Your task to perform on an android device: change timer sound Image 0: 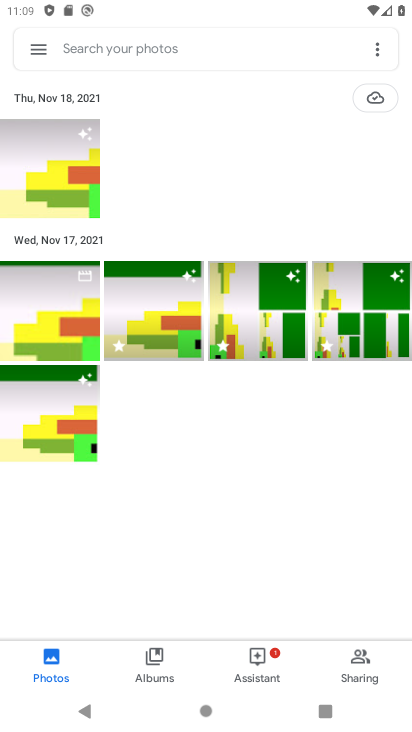
Step 0: press home button
Your task to perform on an android device: change timer sound Image 1: 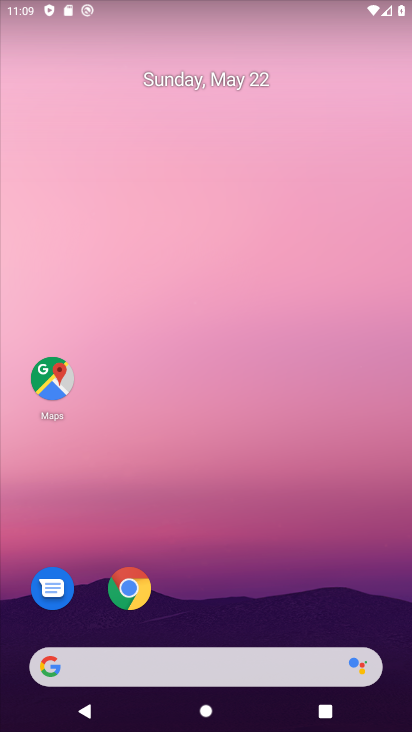
Step 1: drag from (235, 689) to (305, 47)
Your task to perform on an android device: change timer sound Image 2: 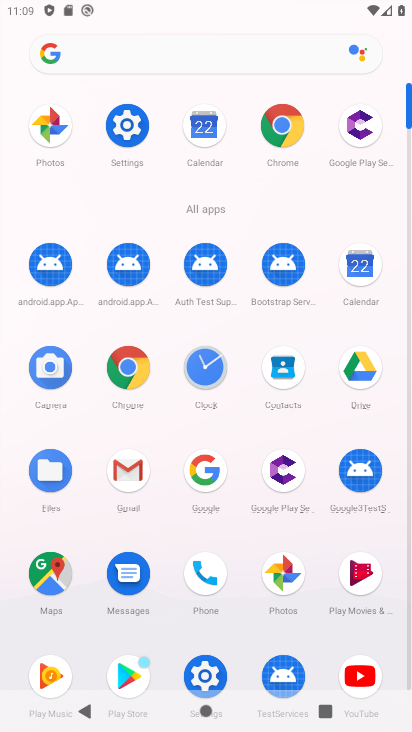
Step 2: click (116, 136)
Your task to perform on an android device: change timer sound Image 3: 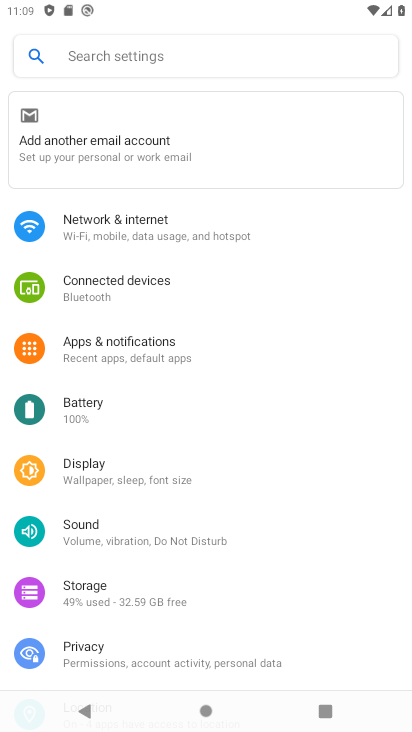
Step 3: press home button
Your task to perform on an android device: change timer sound Image 4: 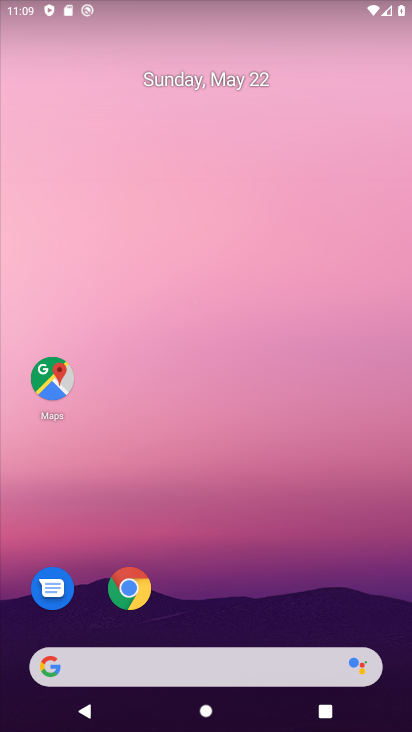
Step 4: drag from (155, 687) to (194, 257)
Your task to perform on an android device: change timer sound Image 5: 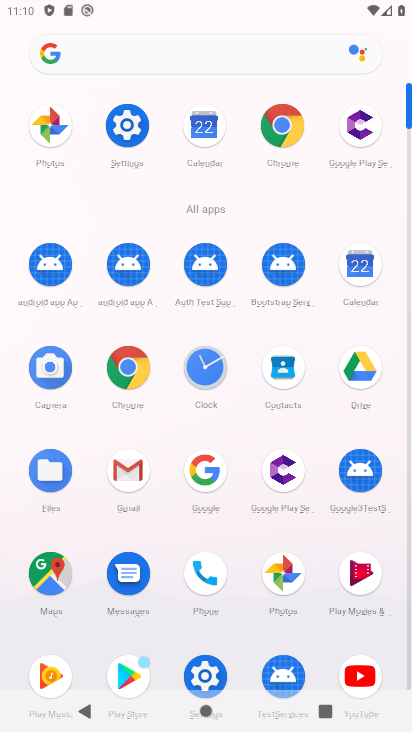
Step 5: click (204, 354)
Your task to perform on an android device: change timer sound Image 6: 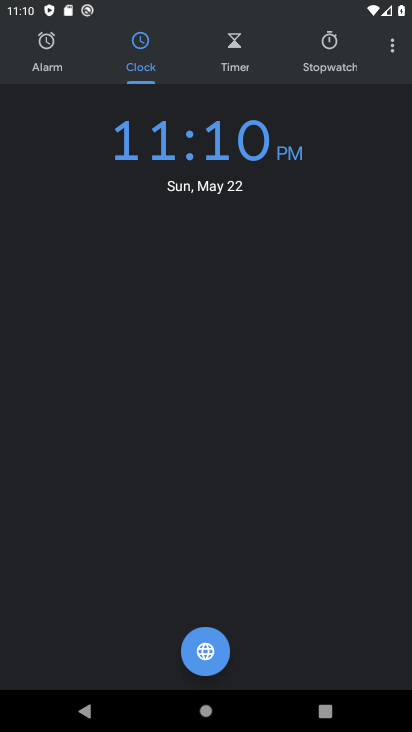
Step 6: click (389, 54)
Your task to perform on an android device: change timer sound Image 7: 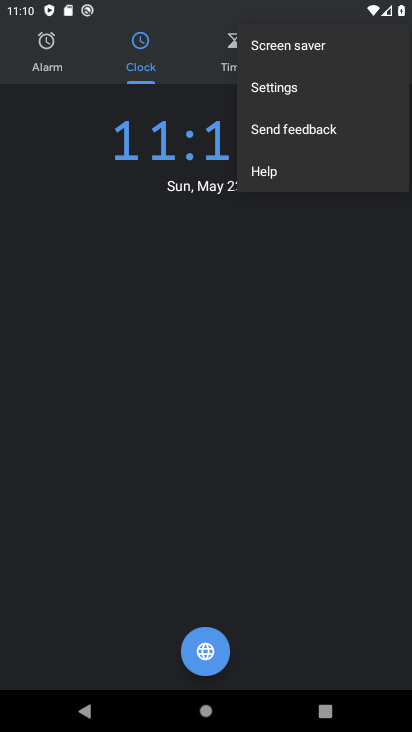
Step 7: click (277, 94)
Your task to perform on an android device: change timer sound Image 8: 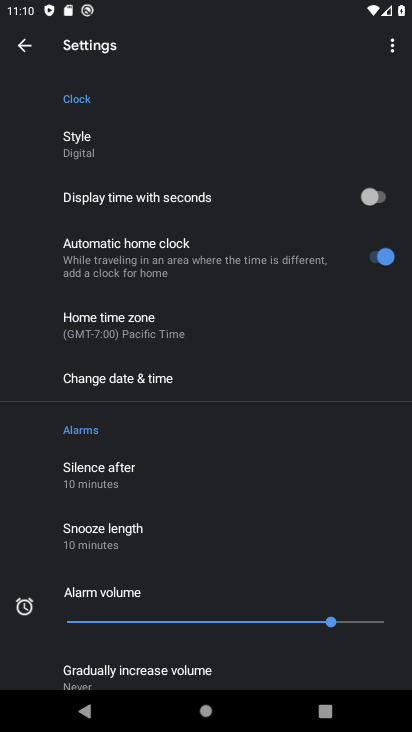
Step 8: drag from (187, 489) to (224, 121)
Your task to perform on an android device: change timer sound Image 9: 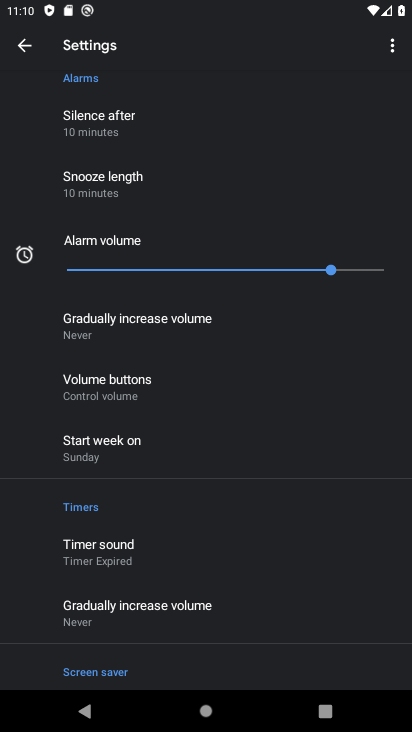
Step 9: click (116, 541)
Your task to perform on an android device: change timer sound Image 10: 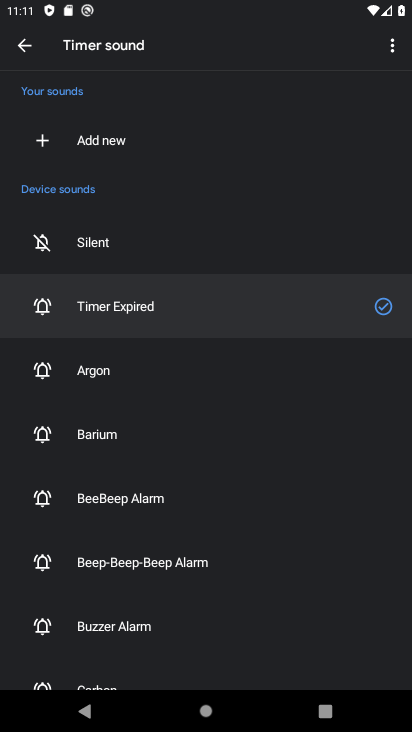
Step 10: click (138, 531)
Your task to perform on an android device: change timer sound Image 11: 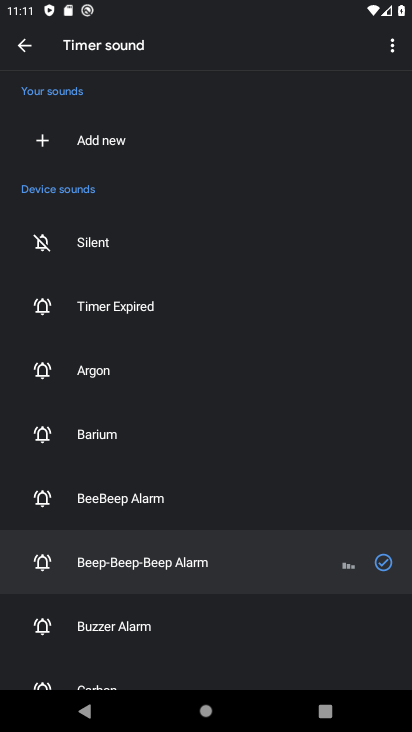
Step 11: task complete